Your task to perform on an android device: change text size in settings app Image 0: 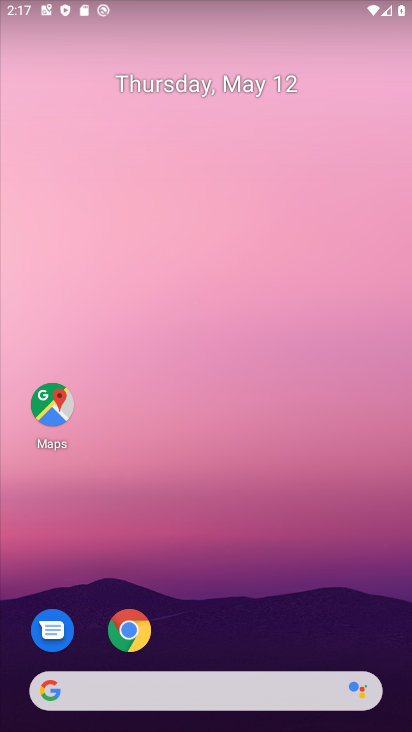
Step 0: drag from (276, 586) to (198, 179)
Your task to perform on an android device: change text size in settings app Image 1: 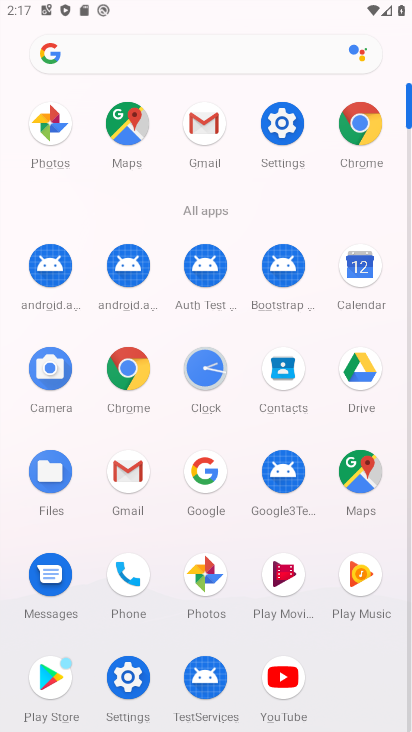
Step 1: click (279, 123)
Your task to perform on an android device: change text size in settings app Image 2: 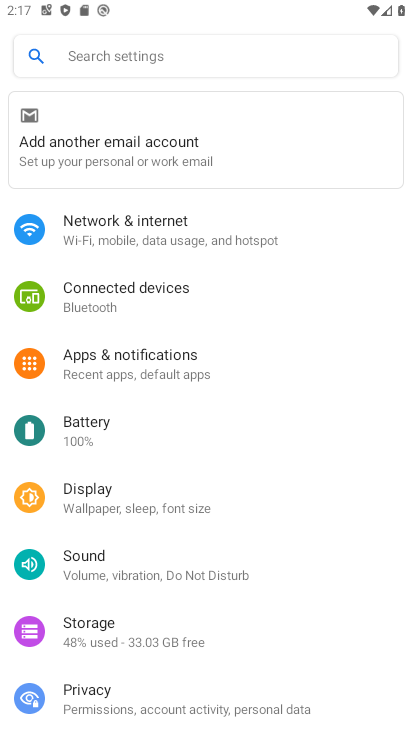
Step 2: drag from (150, 553) to (223, 413)
Your task to perform on an android device: change text size in settings app Image 3: 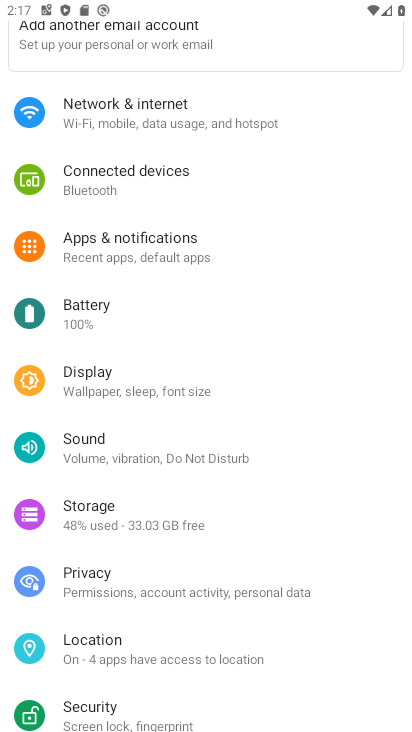
Step 3: drag from (164, 557) to (254, 414)
Your task to perform on an android device: change text size in settings app Image 4: 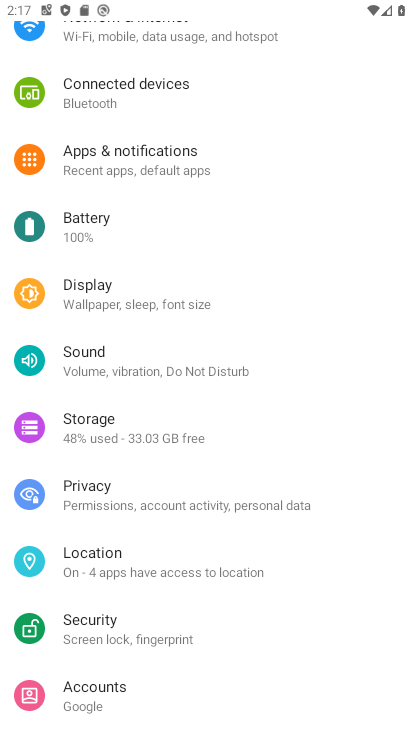
Step 4: drag from (181, 570) to (260, 454)
Your task to perform on an android device: change text size in settings app Image 5: 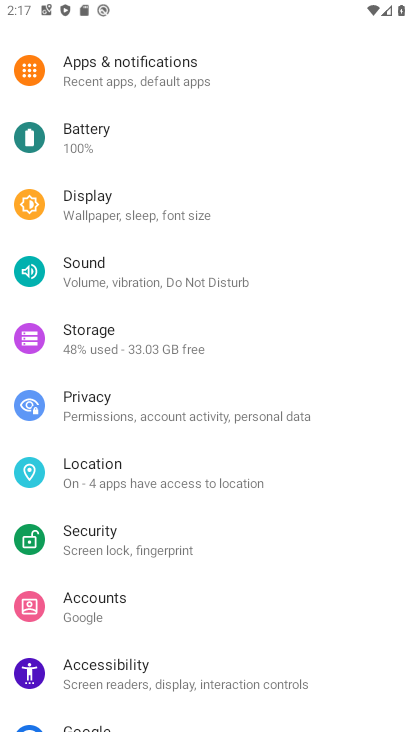
Step 5: drag from (162, 603) to (232, 480)
Your task to perform on an android device: change text size in settings app Image 6: 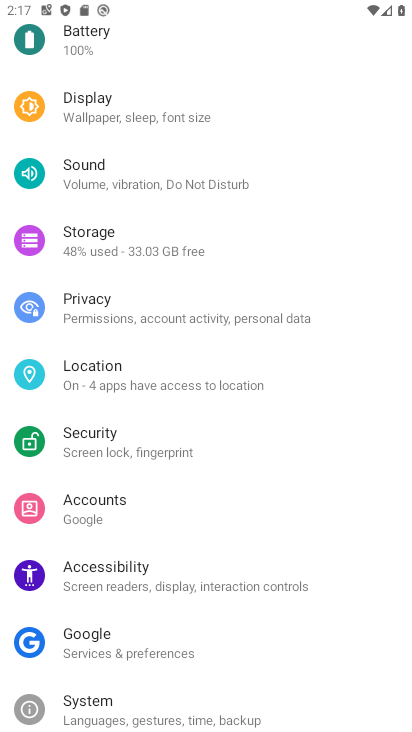
Step 6: click (148, 585)
Your task to perform on an android device: change text size in settings app Image 7: 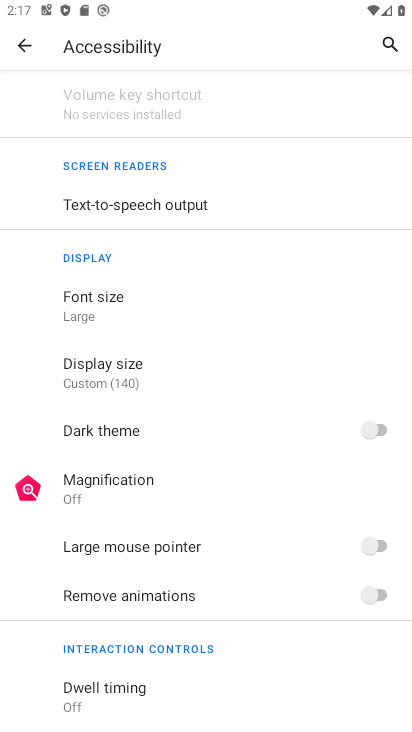
Step 7: click (107, 296)
Your task to perform on an android device: change text size in settings app Image 8: 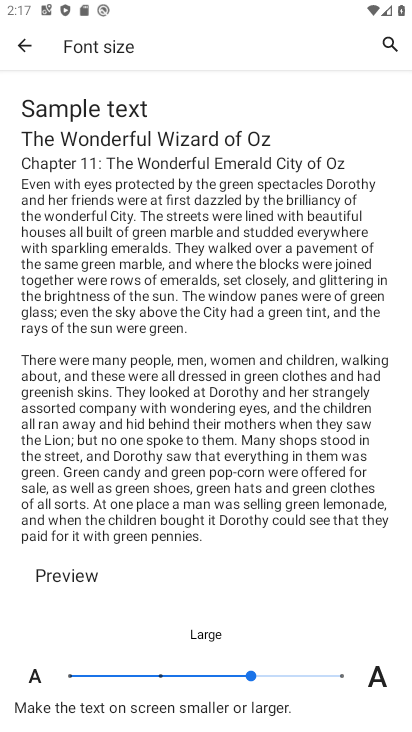
Step 8: click (158, 679)
Your task to perform on an android device: change text size in settings app Image 9: 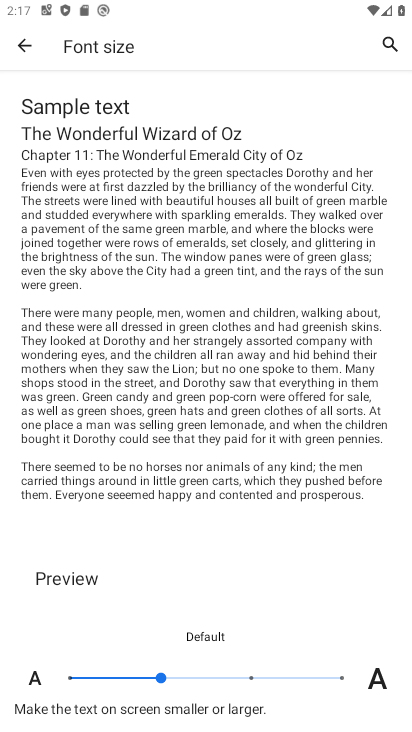
Step 9: task complete